Your task to perform on an android device: turn off location history Image 0: 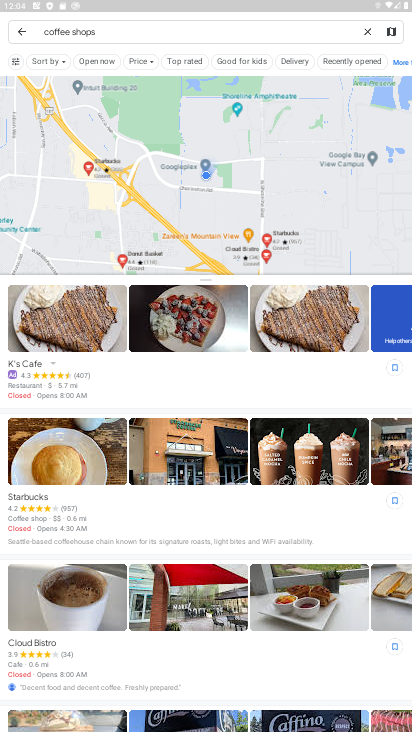
Step 0: press home button
Your task to perform on an android device: turn off location history Image 1: 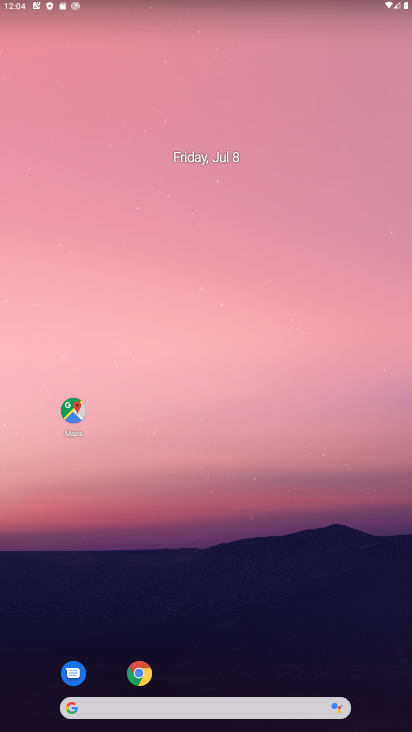
Step 1: drag from (211, 679) to (234, 15)
Your task to perform on an android device: turn off location history Image 2: 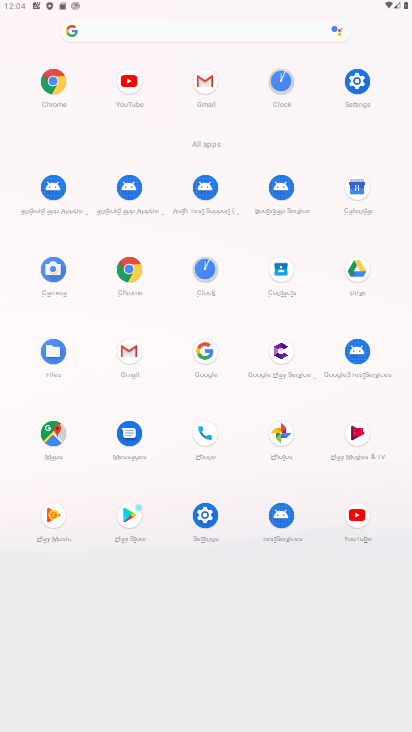
Step 2: click (358, 80)
Your task to perform on an android device: turn off location history Image 3: 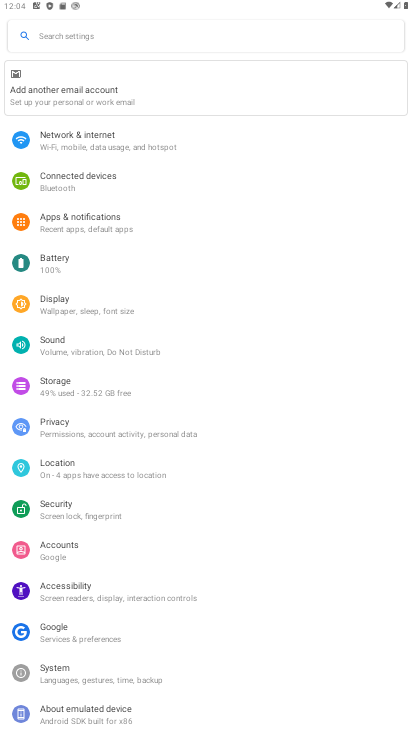
Step 3: click (84, 470)
Your task to perform on an android device: turn off location history Image 4: 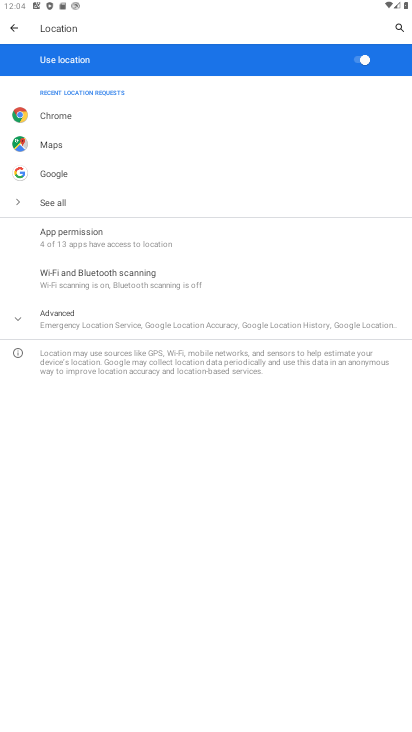
Step 4: click (107, 316)
Your task to perform on an android device: turn off location history Image 5: 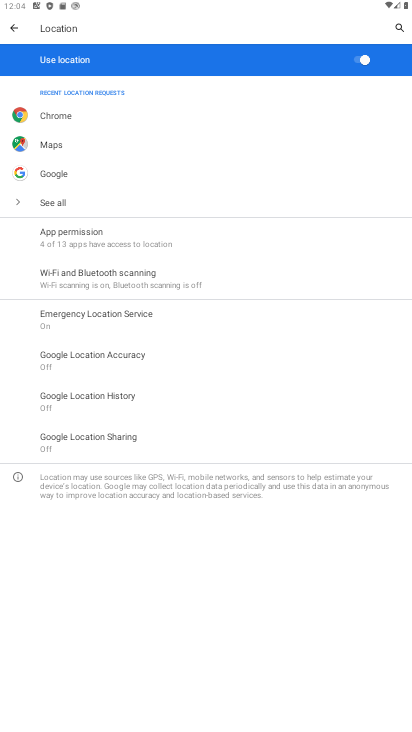
Step 5: click (122, 398)
Your task to perform on an android device: turn off location history Image 6: 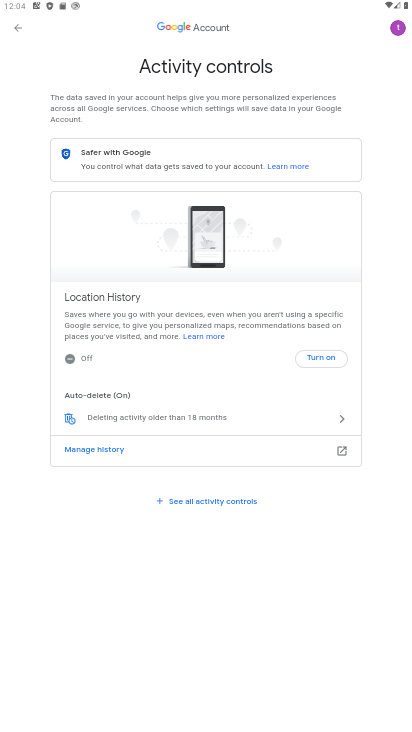
Step 6: task complete